Your task to perform on an android device: toggle notifications settings in the gmail app Image 0: 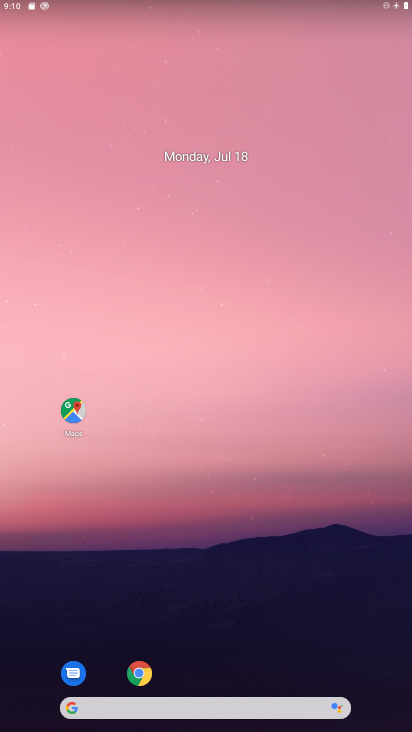
Step 0: press home button
Your task to perform on an android device: toggle notifications settings in the gmail app Image 1: 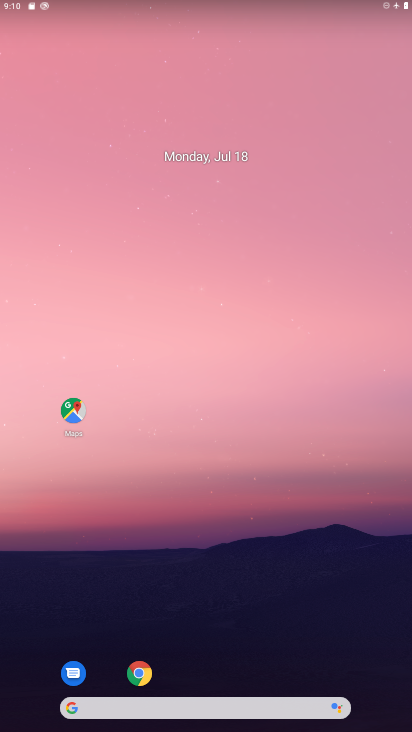
Step 1: drag from (224, 668) to (208, 292)
Your task to perform on an android device: toggle notifications settings in the gmail app Image 2: 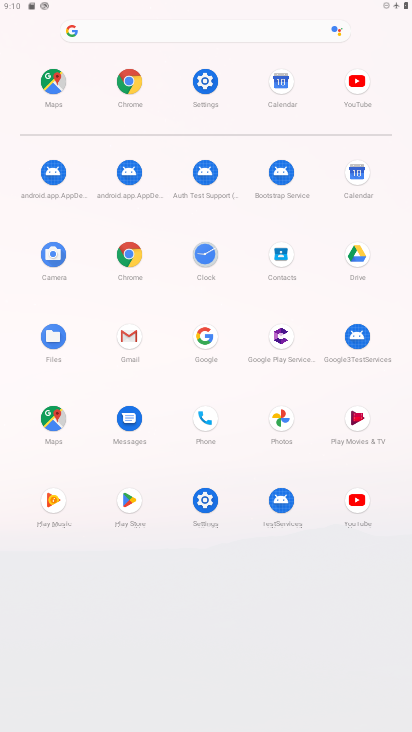
Step 2: click (132, 339)
Your task to perform on an android device: toggle notifications settings in the gmail app Image 3: 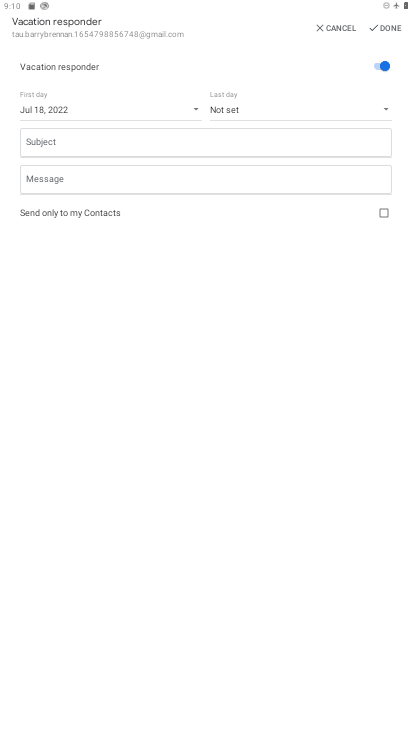
Step 3: press back button
Your task to perform on an android device: toggle notifications settings in the gmail app Image 4: 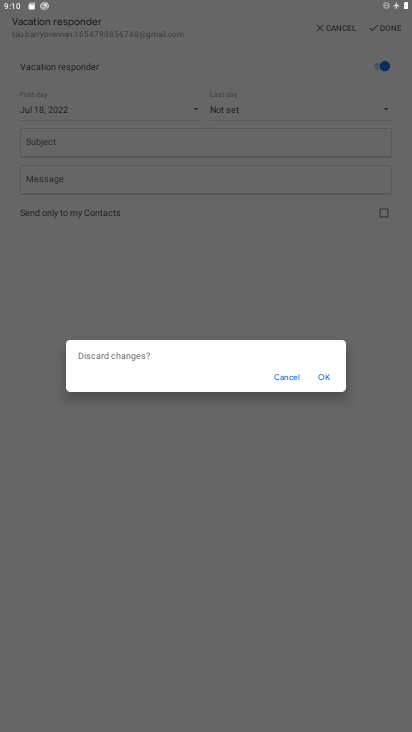
Step 4: click (319, 377)
Your task to perform on an android device: toggle notifications settings in the gmail app Image 5: 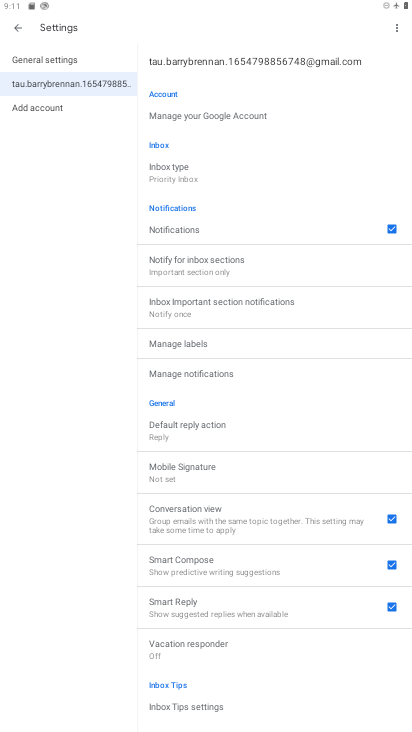
Step 5: click (187, 376)
Your task to perform on an android device: toggle notifications settings in the gmail app Image 6: 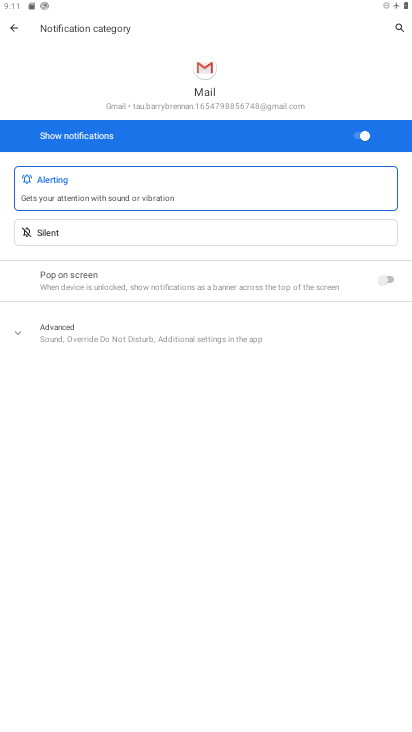
Step 6: click (364, 134)
Your task to perform on an android device: toggle notifications settings in the gmail app Image 7: 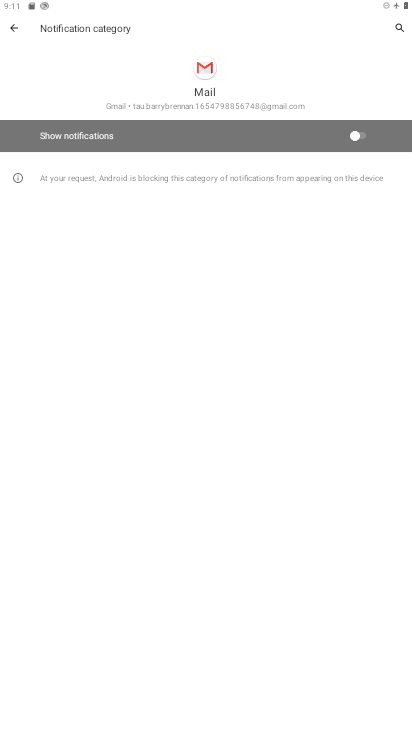
Step 7: task complete